Your task to perform on an android device: check storage Image 0: 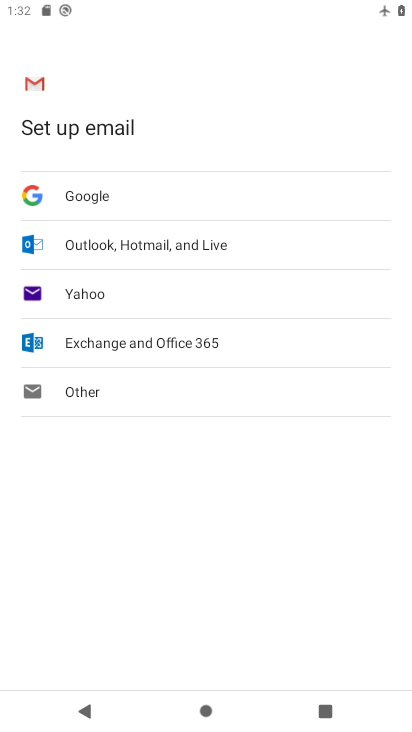
Step 0: press home button
Your task to perform on an android device: check storage Image 1: 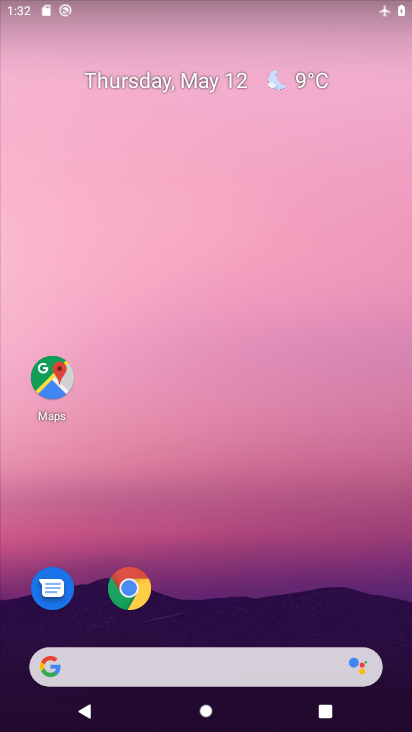
Step 1: drag from (322, 476) to (328, 11)
Your task to perform on an android device: check storage Image 2: 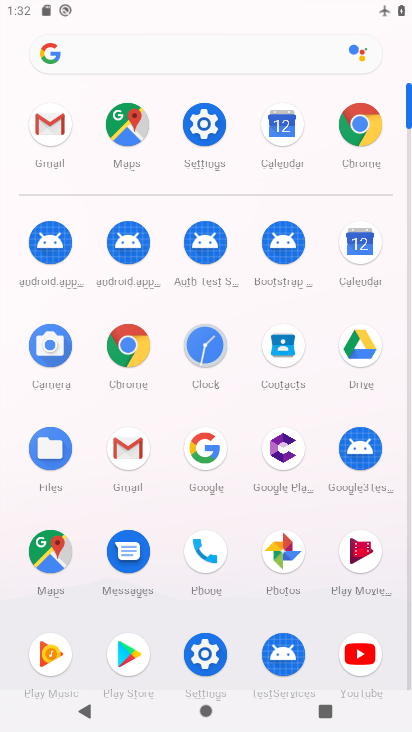
Step 2: click (202, 135)
Your task to perform on an android device: check storage Image 3: 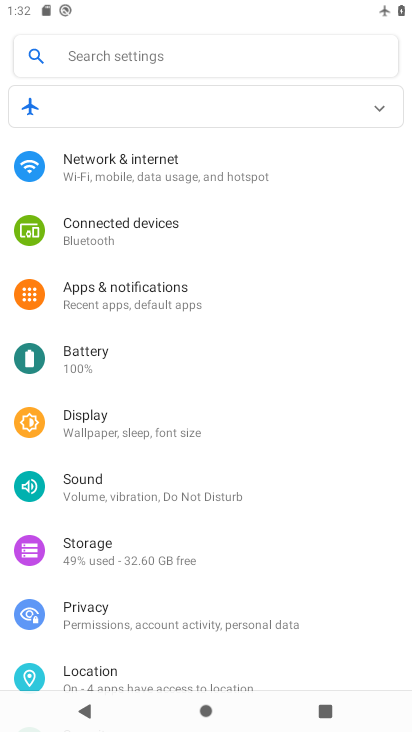
Step 3: click (119, 561)
Your task to perform on an android device: check storage Image 4: 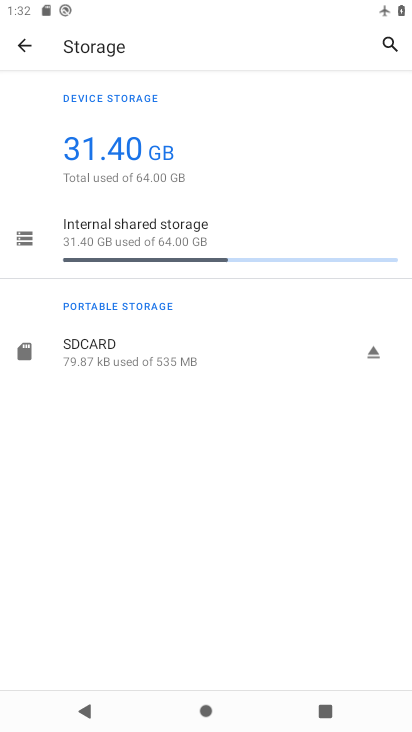
Step 4: click (242, 240)
Your task to perform on an android device: check storage Image 5: 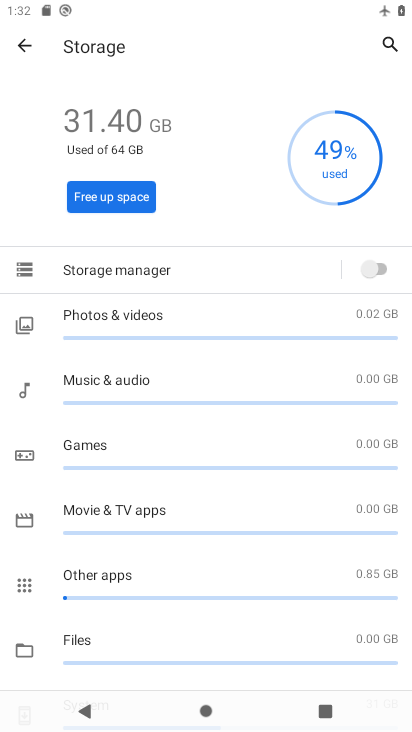
Step 5: task complete